Your task to perform on an android device: check data usage Image 0: 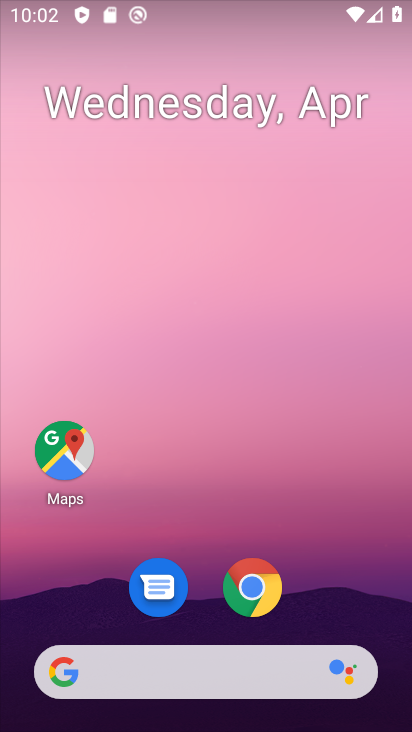
Step 0: drag from (321, 601) to (257, 6)
Your task to perform on an android device: check data usage Image 1: 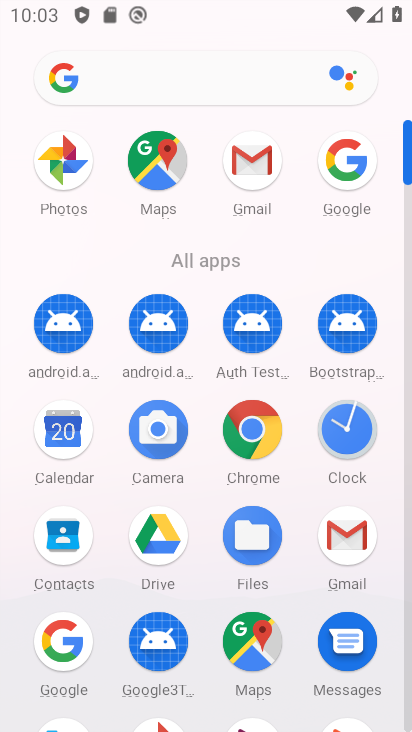
Step 1: drag from (272, 0) to (218, 491)
Your task to perform on an android device: check data usage Image 2: 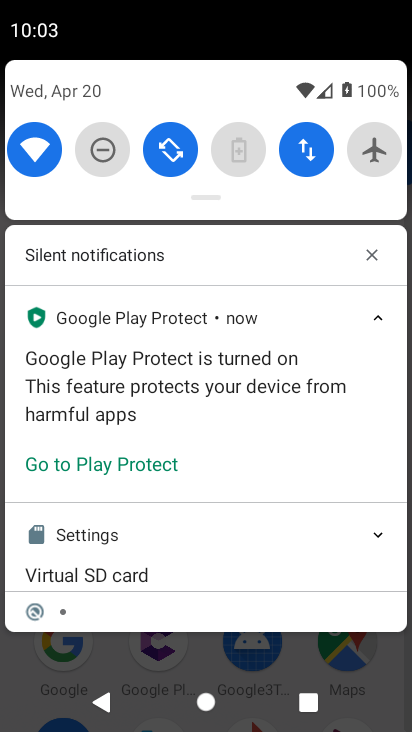
Step 2: click (299, 147)
Your task to perform on an android device: check data usage Image 3: 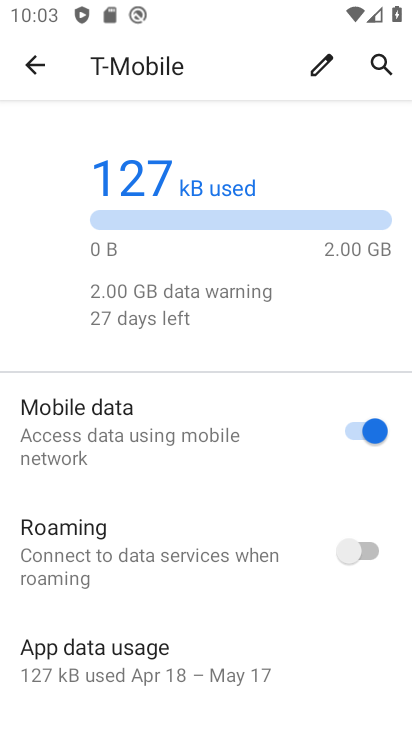
Step 3: task complete